Your task to perform on an android device: change the clock style Image 0: 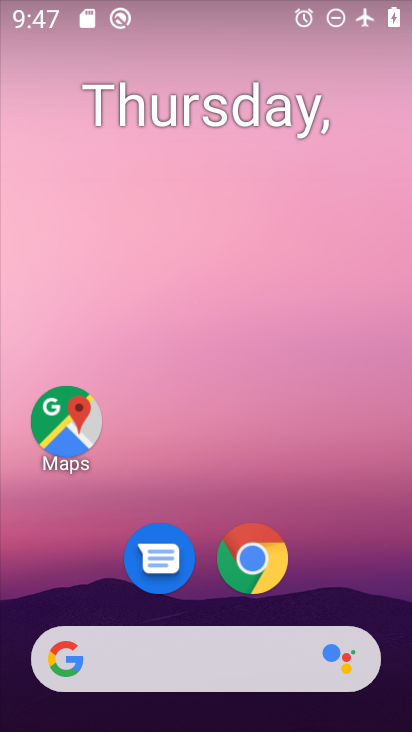
Step 0: drag from (361, 609) to (321, 101)
Your task to perform on an android device: change the clock style Image 1: 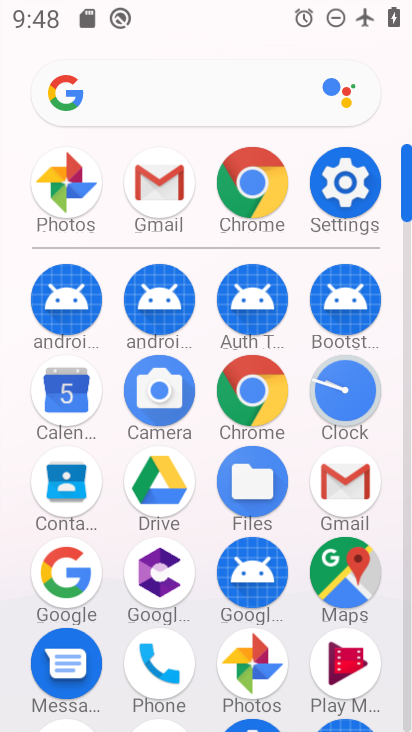
Step 1: click (342, 386)
Your task to perform on an android device: change the clock style Image 2: 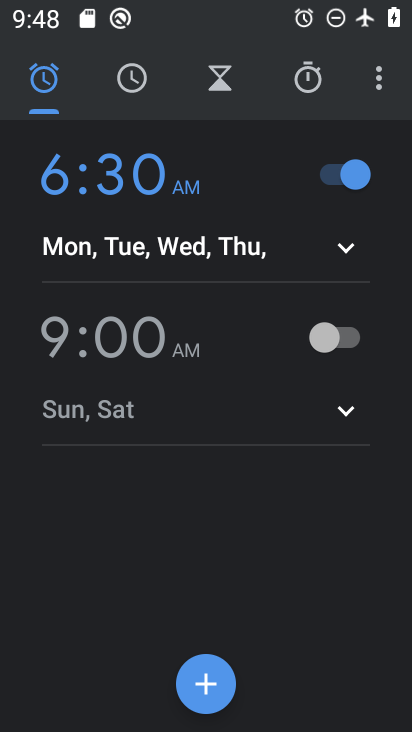
Step 2: click (377, 85)
Your task to perform on an android device: change the clock style Image 3: 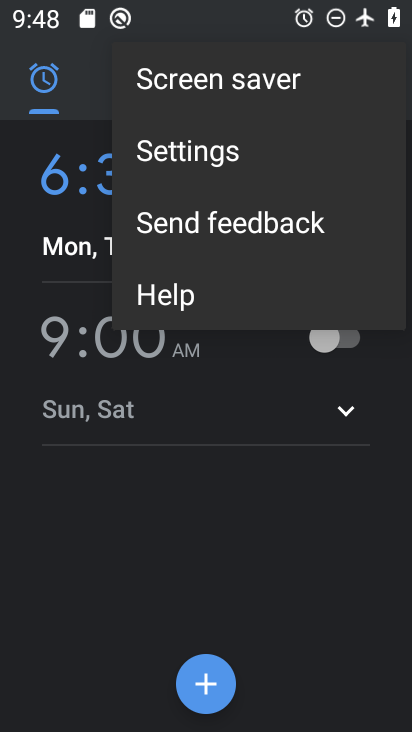
Step 3: click (172, 146)
Your task to perform on an android device: change the clock style Image 4: 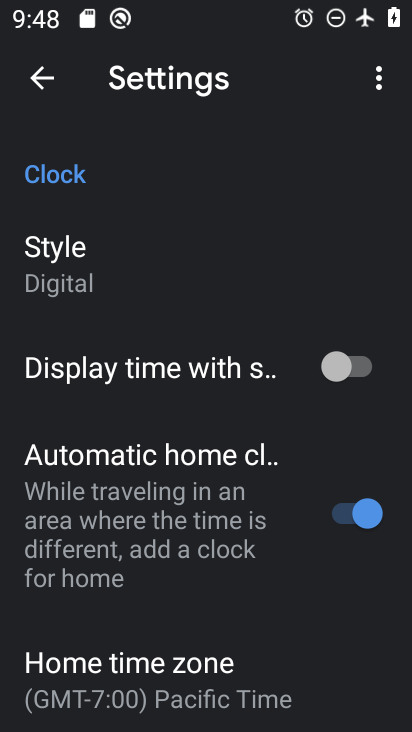
Step 4: click (67, 257)
Your task to perform on an android device: change the clock style Image 5: 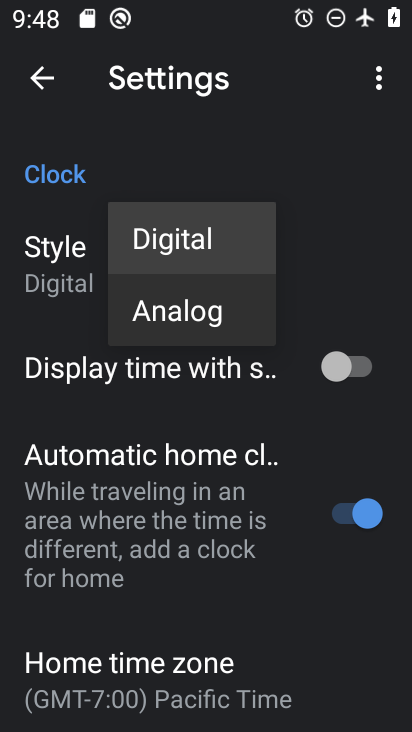
Step 5: click (171, 300)
Your task to perform on an android device: change the clock style Image 6: 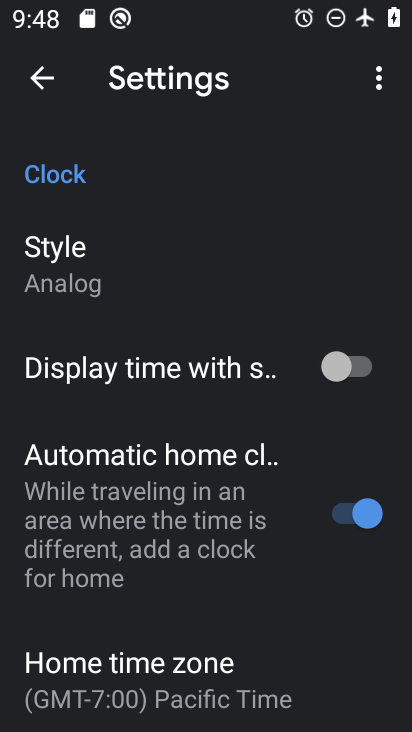
Step 6: task complete